Your task to perform on an android device: Go to Yahoo.com Image 0: 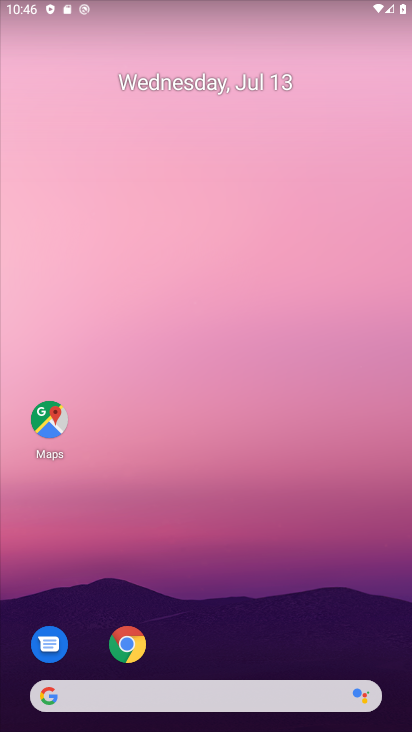
Step 0: click (129, 647)
Your task to perform on an android device: Go to Yahoo.com Image 1: 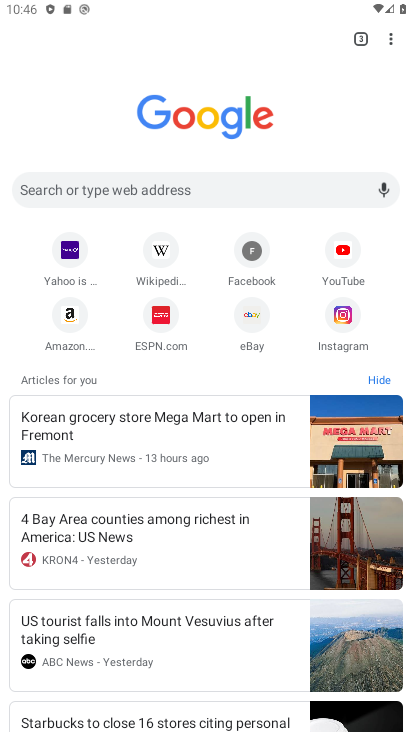
Step 1: click (68, 251)
Your task to perform on an android device: Go to Yahoo.com Image 2: 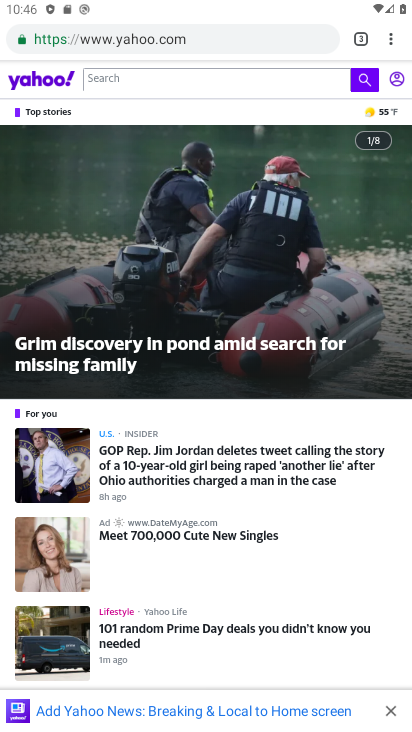
Step 2: task complete